Your task to perform on an android device: check android version Image 0: 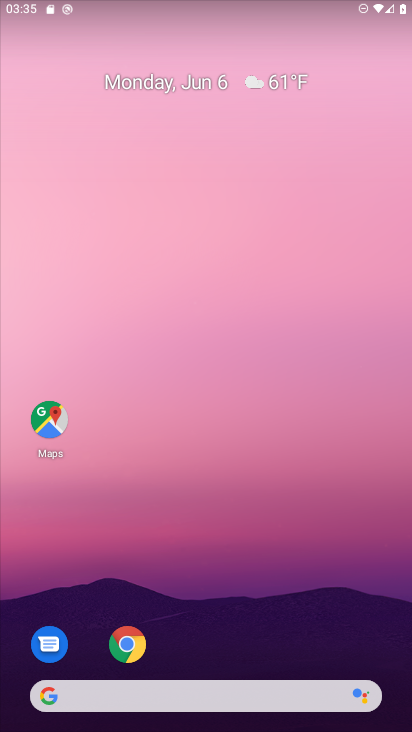
Step 0: drag from (222, 637) to (320, 1)
Your task to perform on an android device: check android version Image 1: 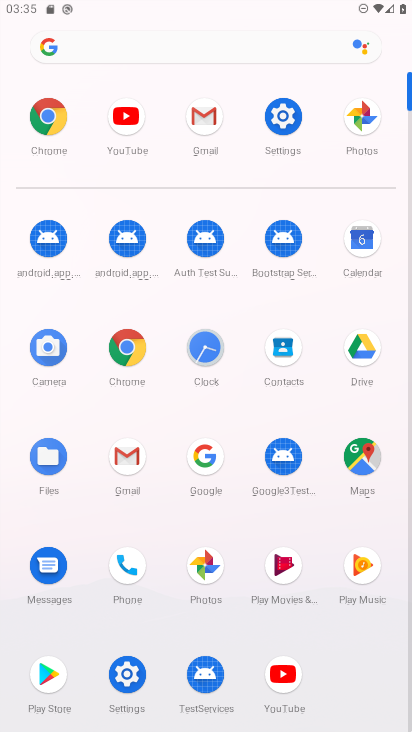
Step 1: click (296, 136)
Your task to perform on an android device: check android version Image 2: 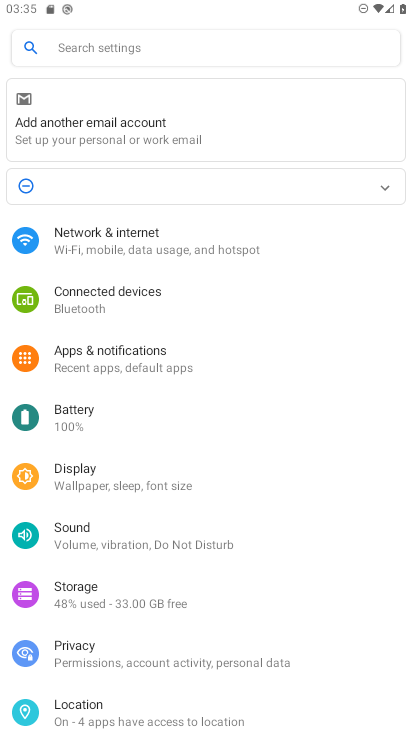
Step 2: drag from (167, 586) to (254, 175)
Your task to perform on an android device: check android version Image 3: 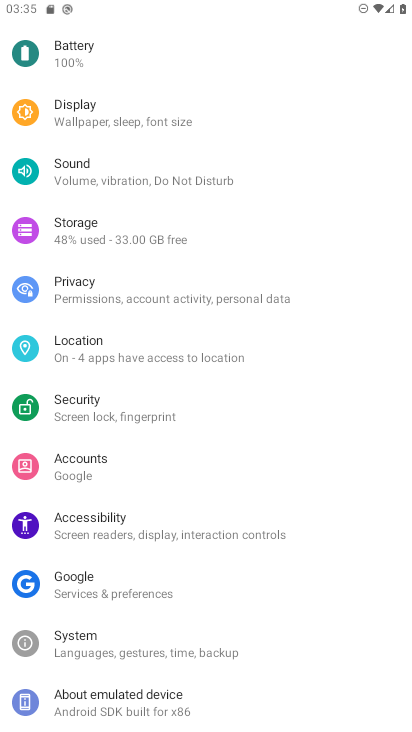
Step 3: click (120, 693)
Your task to perform on an android device: check android version Image 4: 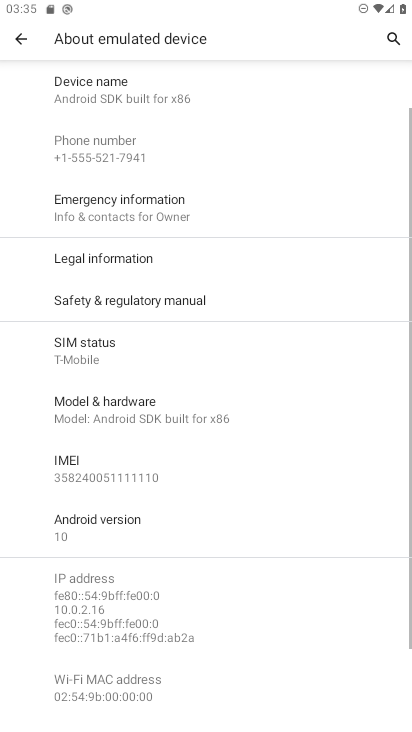
Step 4: click (115, 528)
Your task to perform on an android device: check android version Image 5: 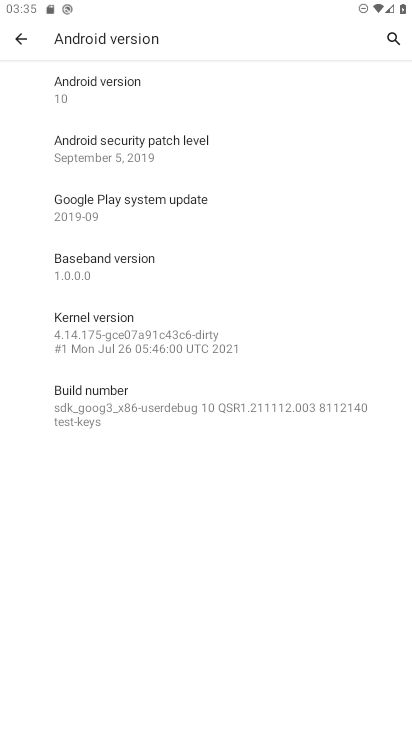
Step 5: click (126, 96)
Your task to perform on an android device: check android version Image 6: 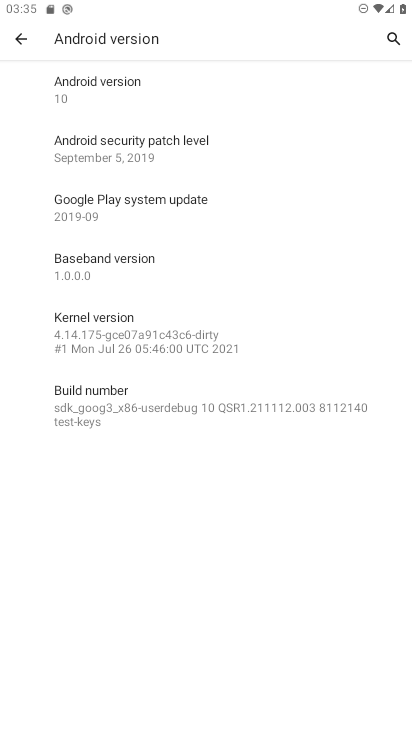
Step 6: task complete